Your task to perform on an android device: Go to settings Image 0: 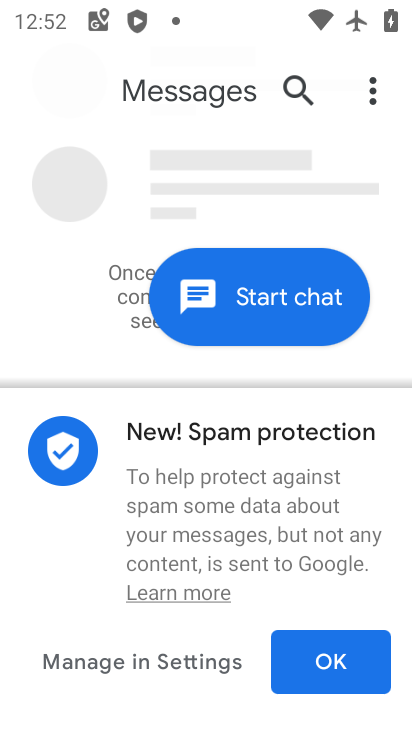
Step 0: press home button
Your task to perform on an android device: Go to settings Image 1: 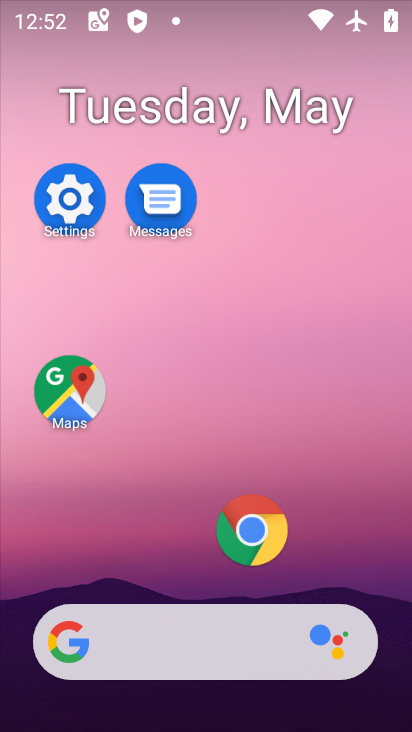
Step 1: drag from (213, 566) to (254, 221)
Your task to perform on an android device: Go to settings Image 2: 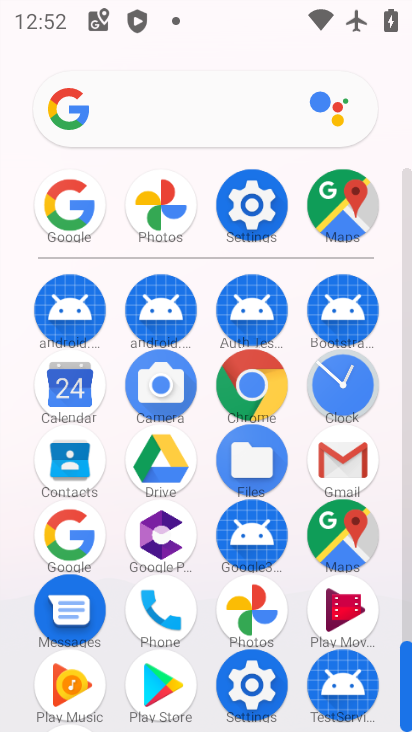
Step 2: click (266, 686)
Your task to perform on an android device: Go to settings Image 3: 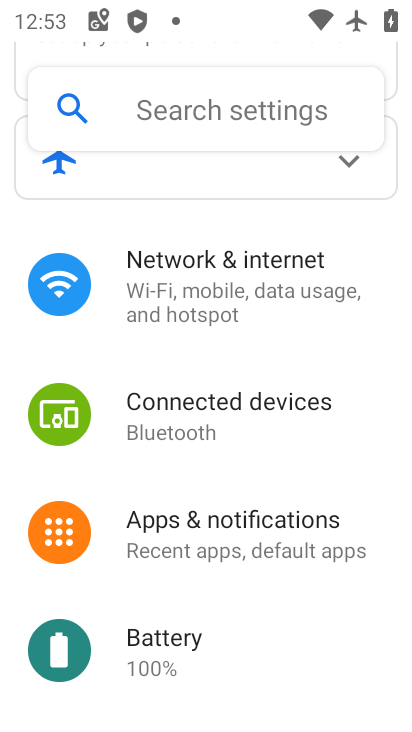
Step 3: task complete